Your task to perform on an android device: Go to privacy settings Image 0: 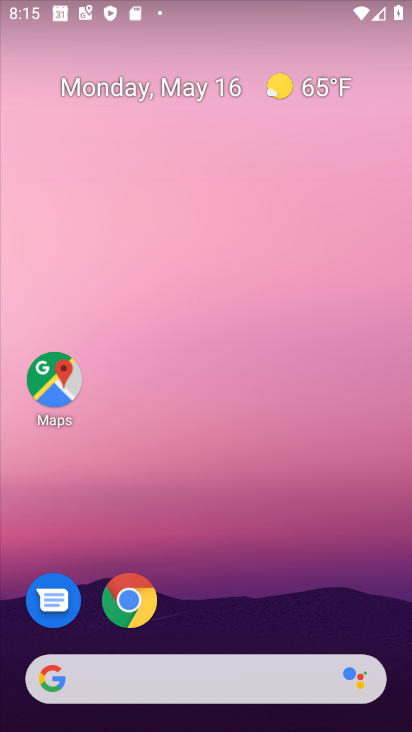
Step 0: drag from (172, 606) to (317, 141)
Your task to perform on an android device: Go to privacy settings Image 1: 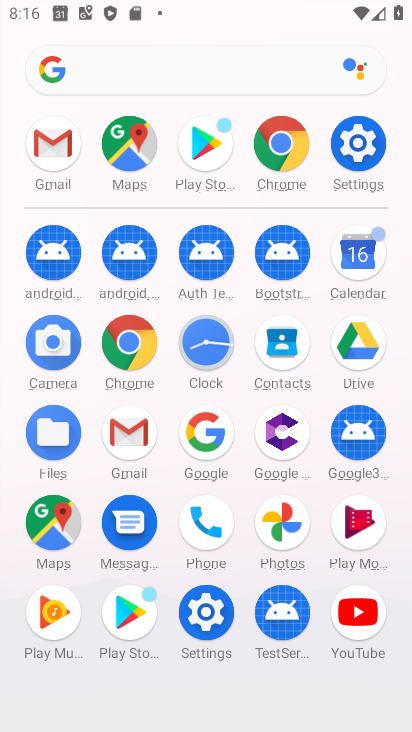
Step 1: drag from (236, 574) to (253, 163)
Your task to perform on an android device: Go to privacy settings Image 2: 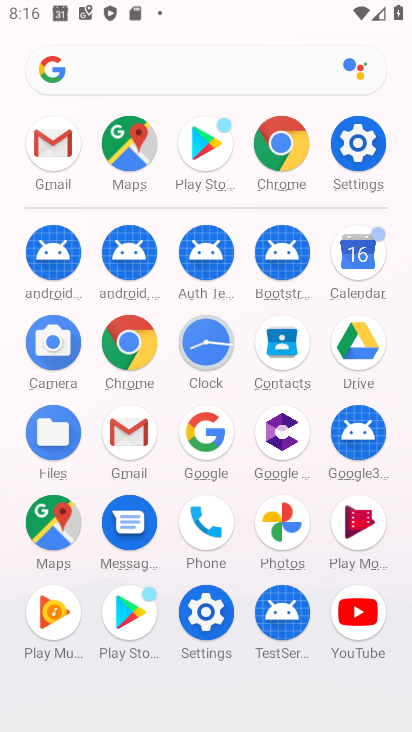
Step 2: click (194, 619)
Your task to perform on an android device: Go to privacy settings Image 3: 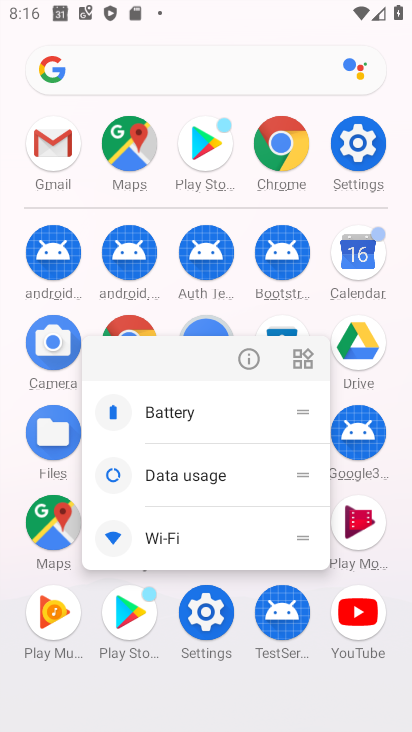
Step 3: click (241, 354)
Your task to perform on an android device: Go to privacy settings Image 4: 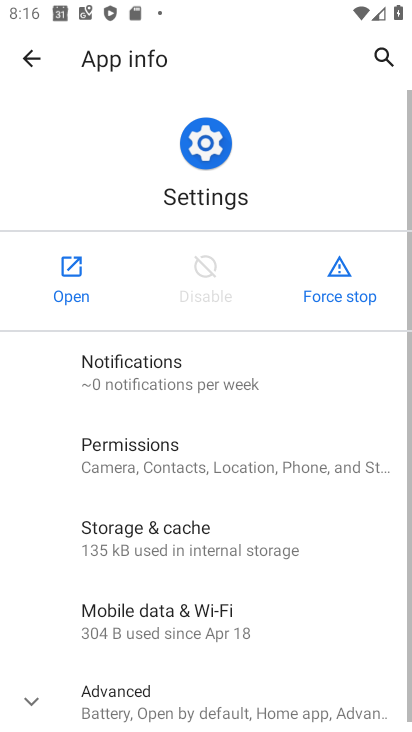
Step 4: click (80, 272)
Your task to perform on an android device: Go to privacy settings Image 5: 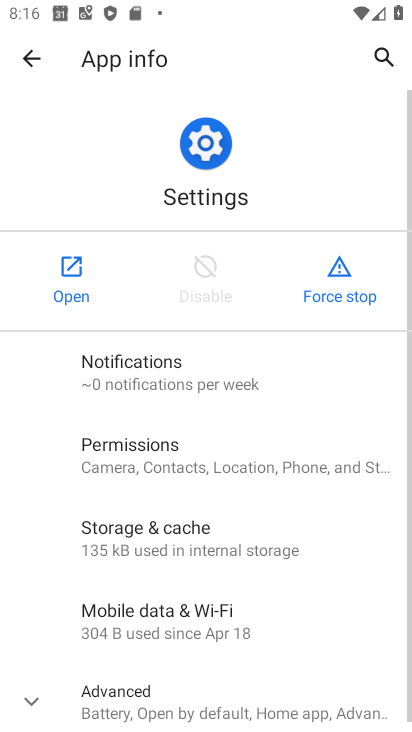
Step 5: click (80, 272)
Your task to perform on an android device: Go to privacy settings Image 6: 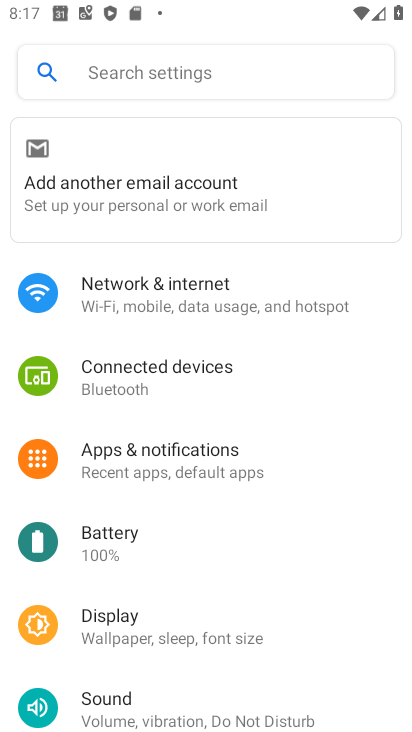
Step 6: drag from (221, 555) to (221, 333)
Your task to perform on an android device: Go to privacy settings Image 7: 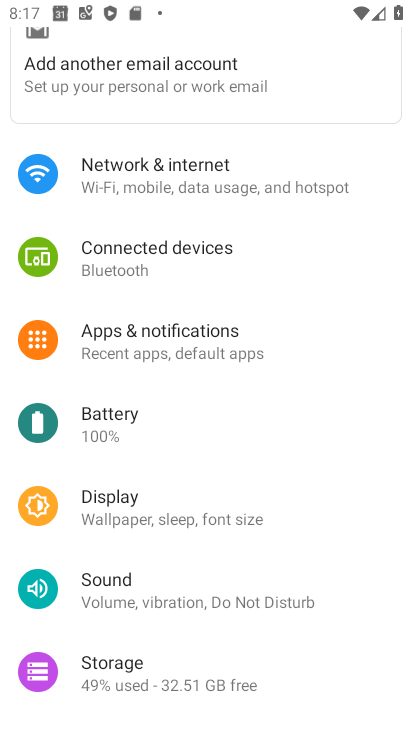
Step 7: drag from (198, 603) to (255, 282)
Your task to perform on an android device: Go to privacy settings Image 8: 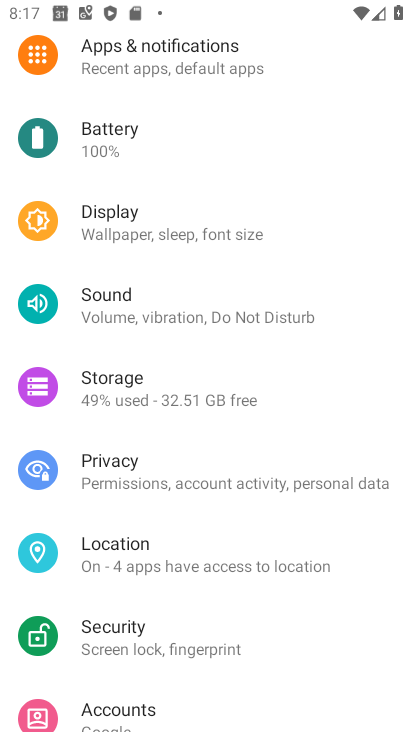
Step 8: click (193, 470)
Your task to perform on an android device: Go to privacy settings Image 9: 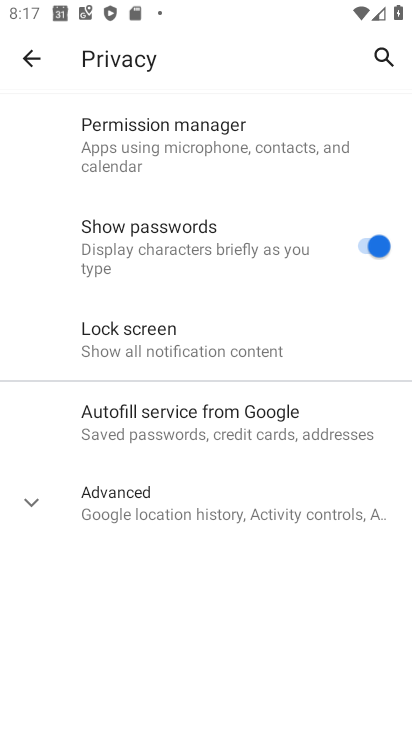
Step 9: task complete